Your task to perform on an android device: toggle show notifications on the lock screen Image 0: 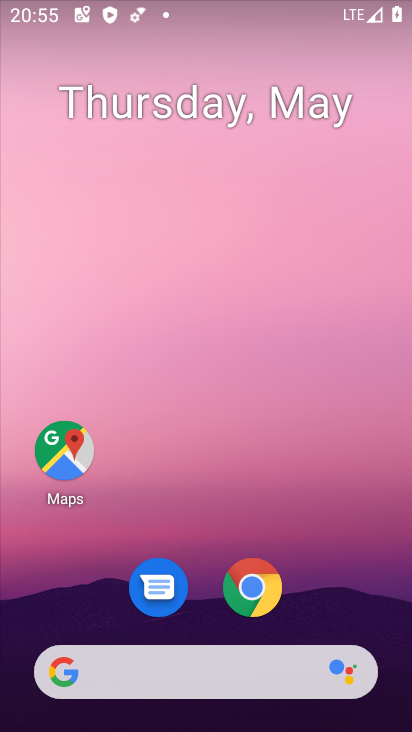
Step 0: drag from (125, 725) to (125, 97)
Your task to perform on an android device: toggle show notifications on the lock screen Image 1: 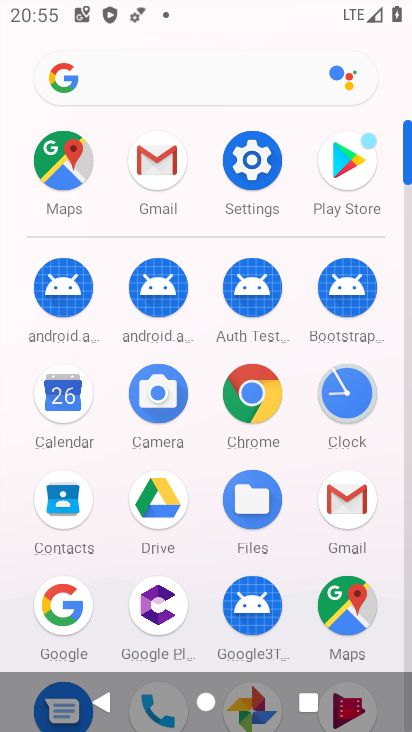
Step 1: click (272, 184)
Your task to perform on an android device: toggle show notifications on the lock screen Image 2: 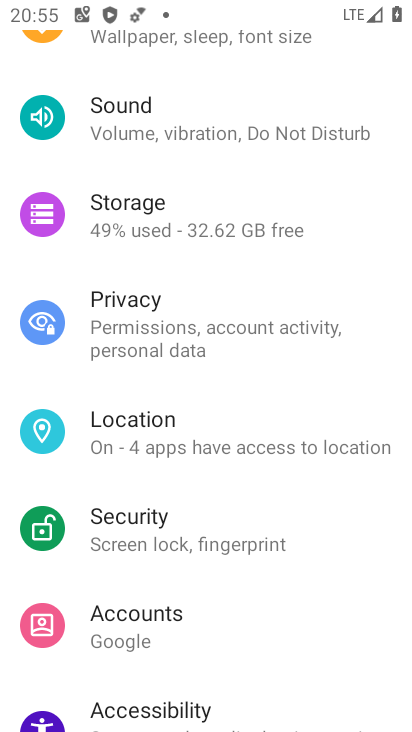
Step 2: drag from (283, 104) to (276, 618)
Your task to perform on an android device: toggle show notifications on the lock screen Image 3: 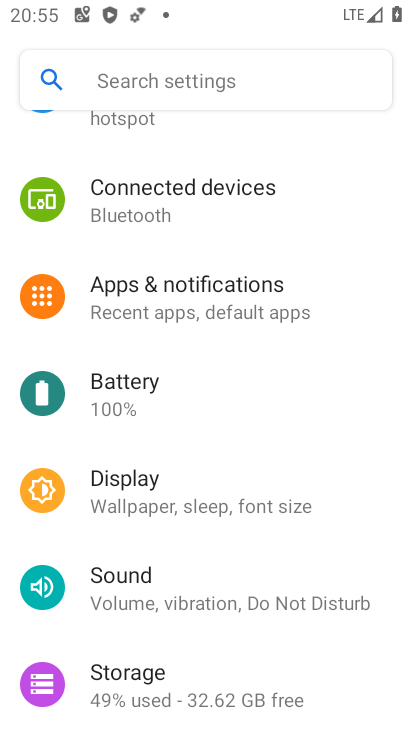
Step 3: click (215, 315)
Your task to perform on an android device: toggle show notifications on the lock screen Image 4: 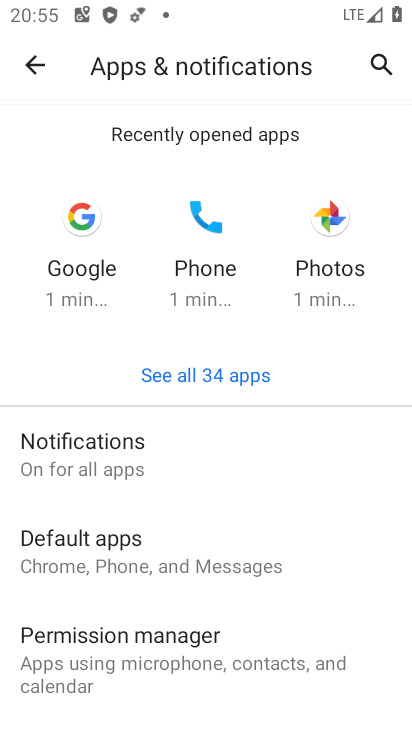
Step 4: click (121, 481)
Your task to perform on an android device: toggle show notifications on the lock screen Image 5: 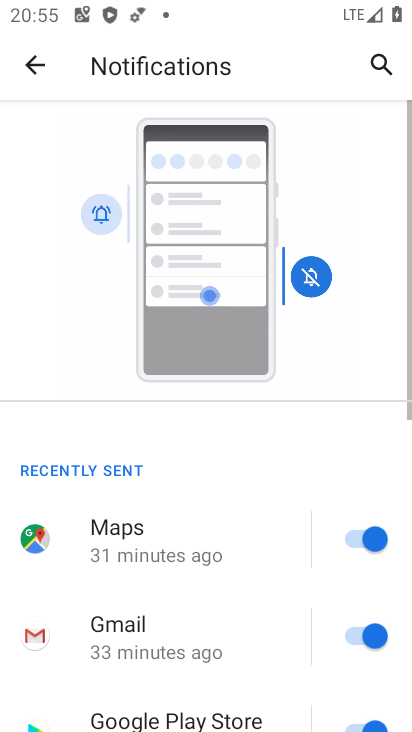
Step 5: drag from (227, 629) to (273, 241)
Your task to perform on an android device: toggle show notifications on the lock screen Image 6: 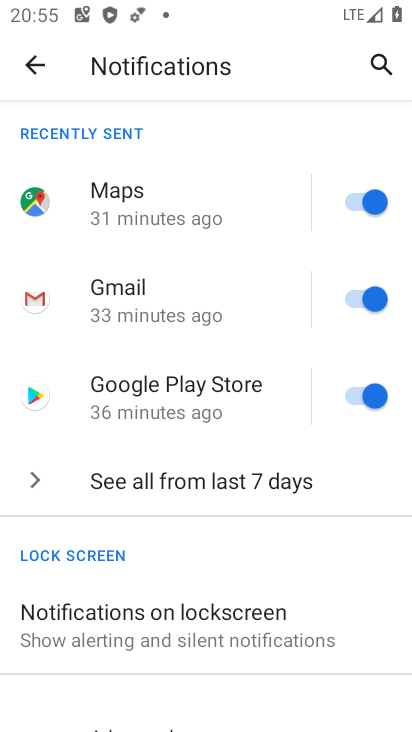
Step 6: click (184, 650)
Your task to perform on an android device: toggle show notifications on the lock screen Image 7: 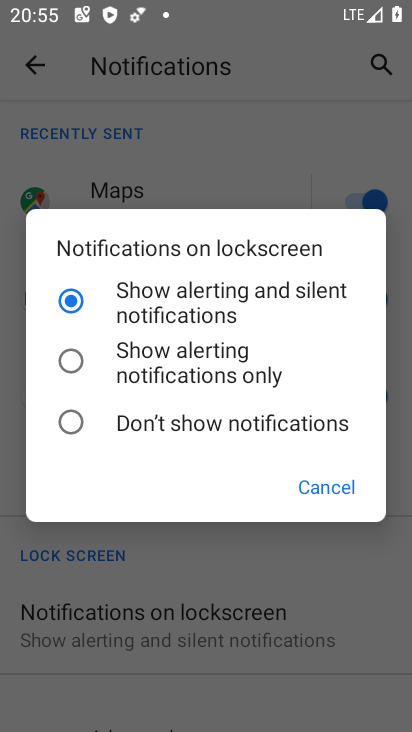
Step 7: task complete